Your task to perform on an android device: Open Yahoo.com Image 0: 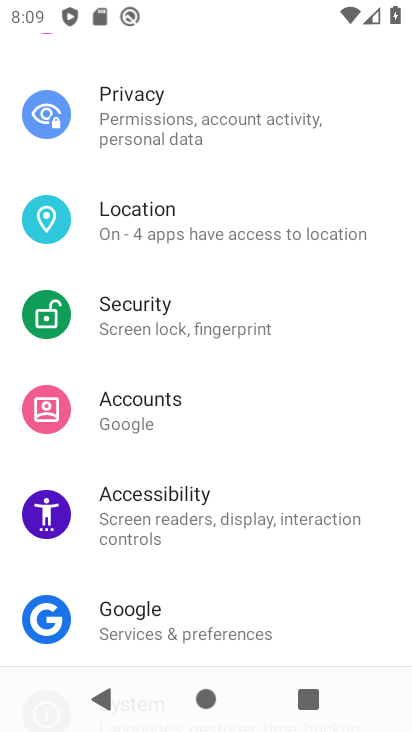
Step 0: press home button
Your task to perform on an android device: Open Yahoo.com Image 1: 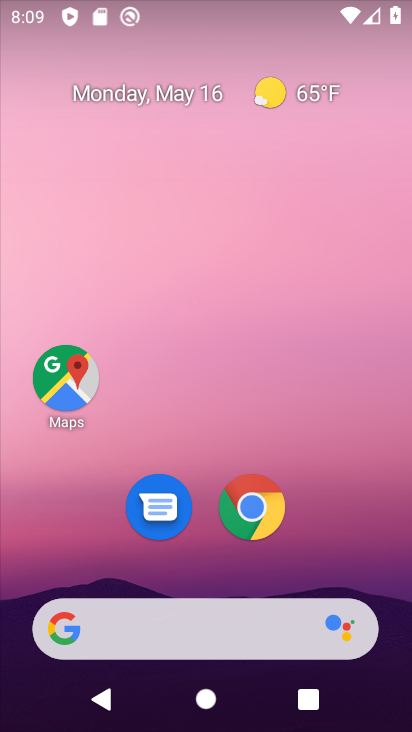
Step 1: drag from (225, 584) to (378, 322)
Your task to perform on an android device: Open Yahoo.com Image 2: 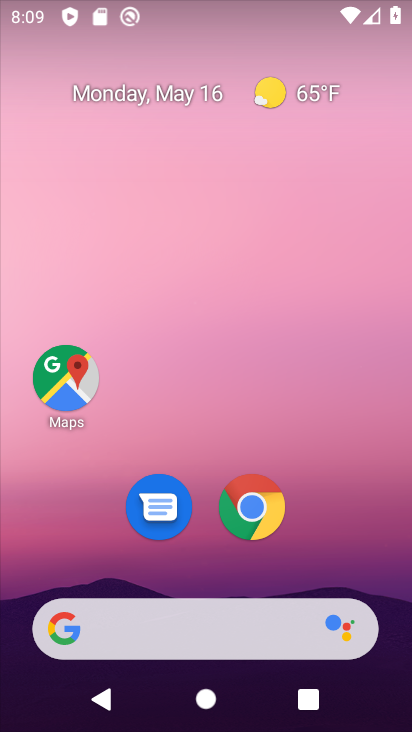
Step 2: click (139, 609)
Your task to perform on an android device: Open Yahoo.com Image 3: 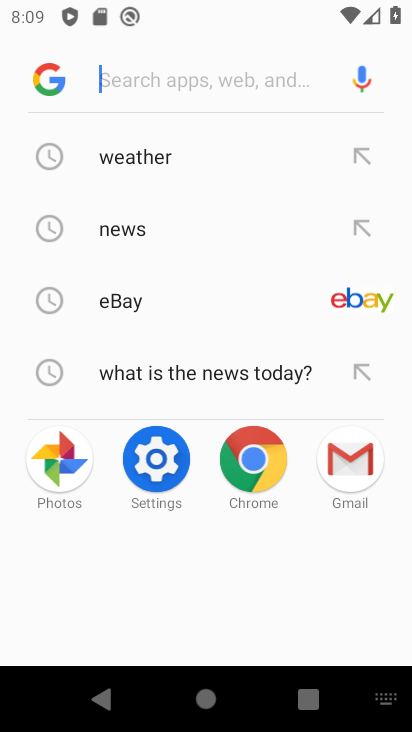
Step 3: press home button
Your task to perform on an android device: Open Yahoo.com Image 4: 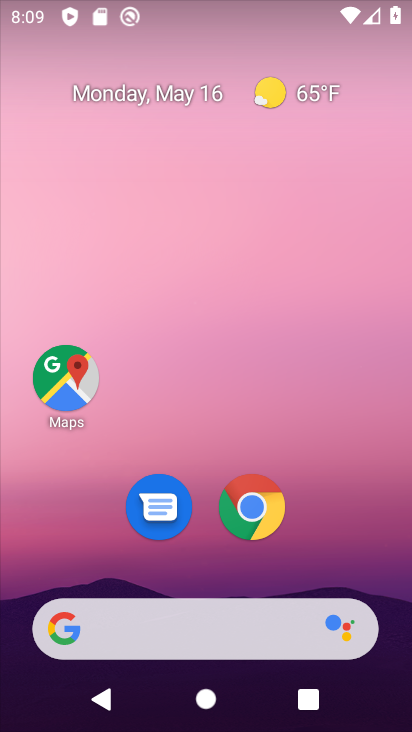
Step 4: click (270, 527)
Your task to perform on an android device: Open Yahoo.com Image 5: 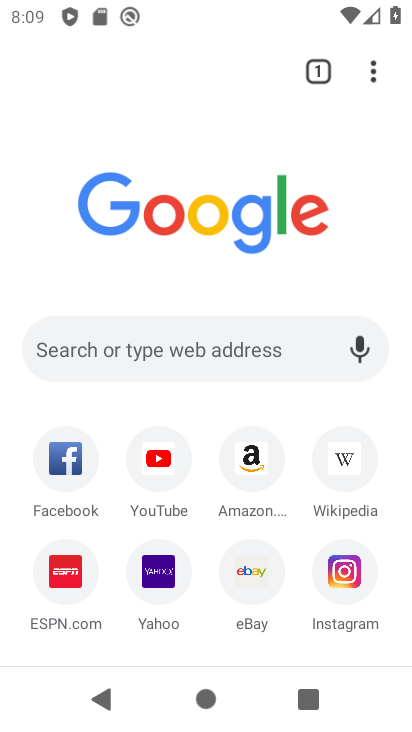
Step 5: click (163, 576)
Your task to perform on an android device: Open Yahoo.com Image 6: 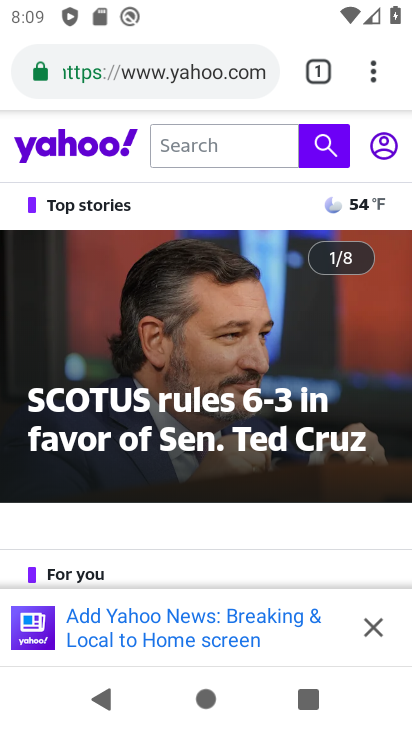
Step 6: task complete